Your task to perform on an android device: see creations saved in the google photos Image 0: 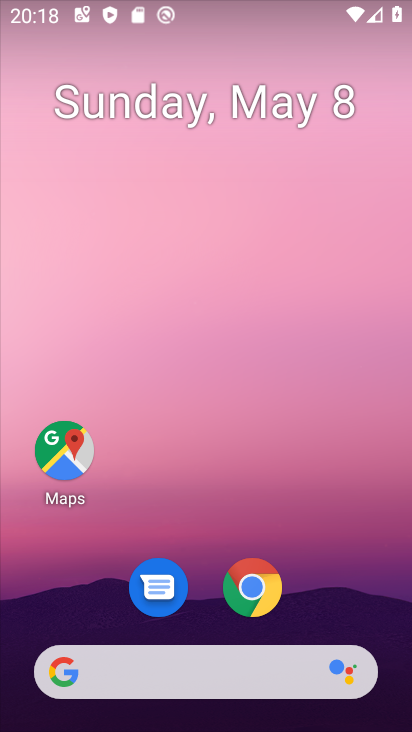
Step 0: drag from (342, 607) to (303, 129)
Your task to perform on an android device: see creations saved in the google photos Image 1: 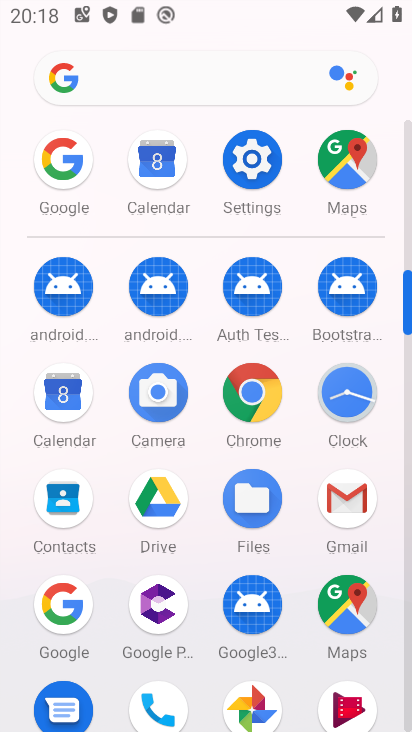
Step 1: drag from (203, 571) to (193, 367)
Your task to perform on an android device: see creations saved in the google photos Image 2: 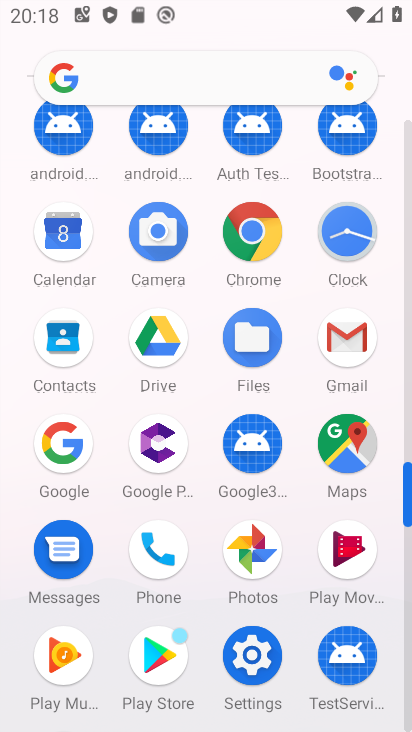
Step 2: click (249, 549)
Your task to perform on an android device: see creations saved in the google photos Image 3: 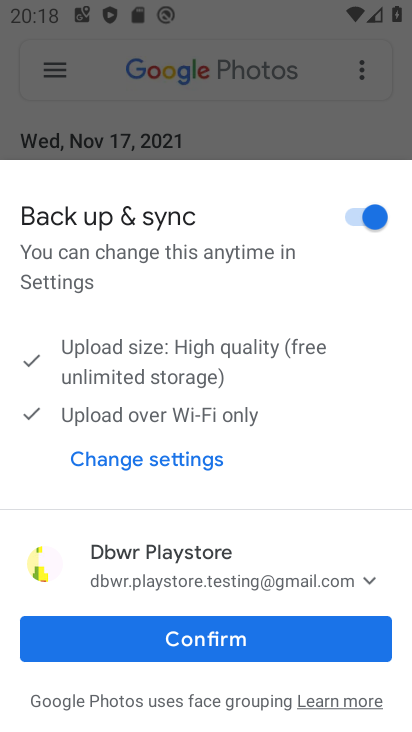
Step 3: click (241, 648)
Your task to perform on an android device: see creations saved in the google photos Image 4: 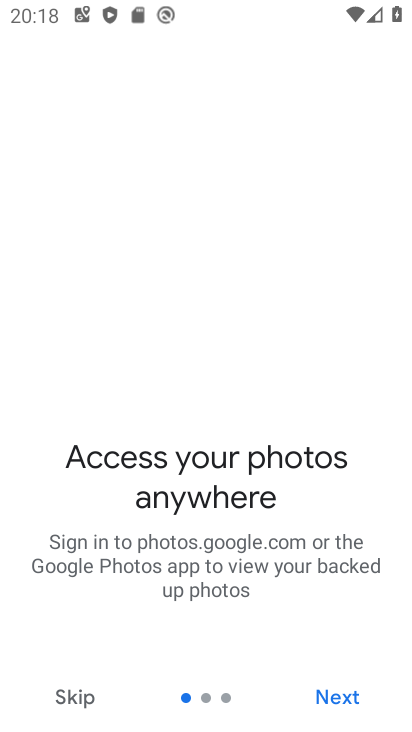
Step 4: click (83, 697)
Your task to perform on an android device: see creations saved in the google photos Image 5: 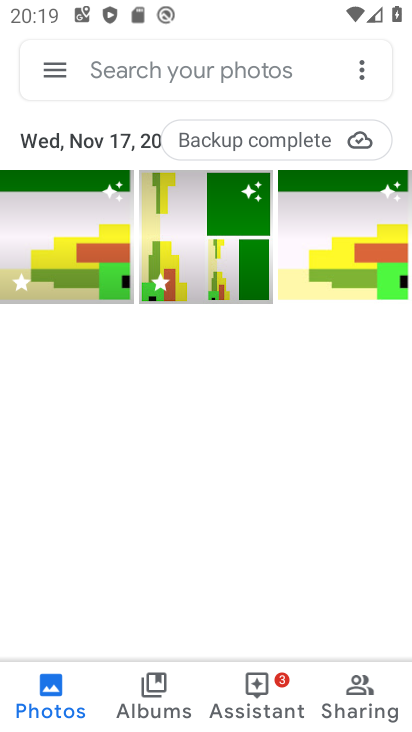
Step 5: click (194, 66)
Your task to perform on an android device: see creations saved in the google photos Image 6: 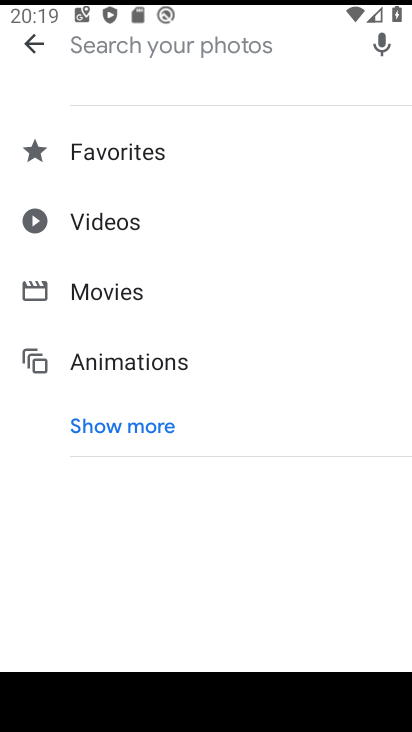
Step 6: click (126, 429)
Your task to perform on an android device: see creations saved in the google photos Image 7: 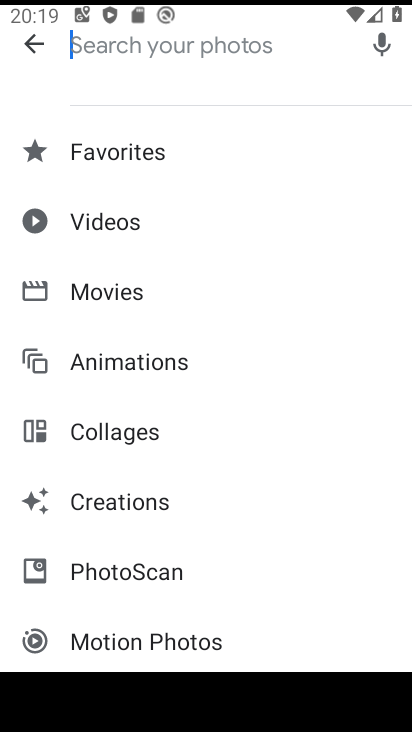
Step 7: drag from (93, 522) to (164, 392)
Your task to perform on an android device: see creations saved in the google photos Image 8: 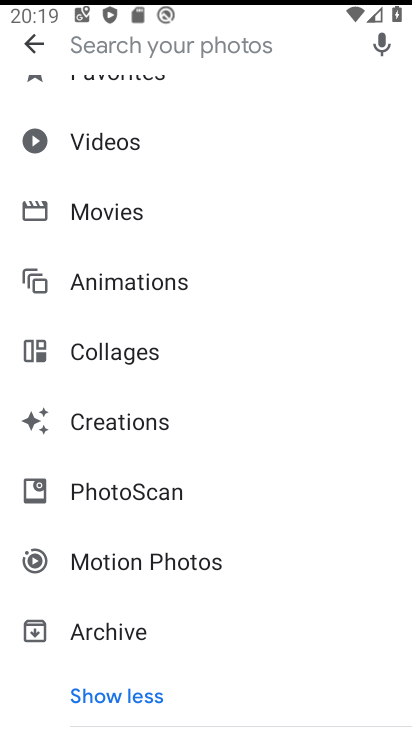
Step 8: click (163, 422)
Your task to perform on an android device: see creations saved in the google photos Image 9: 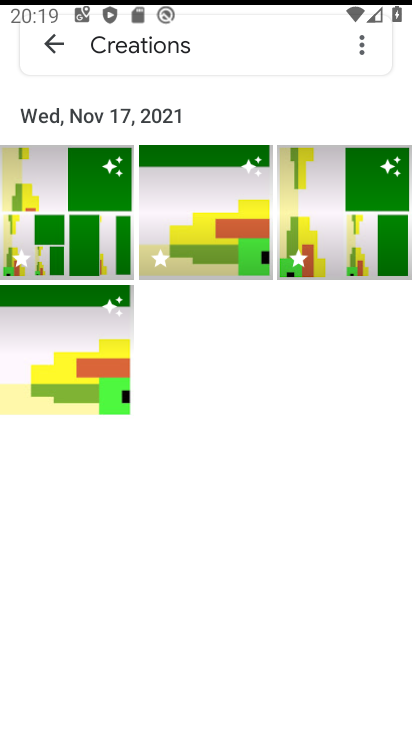
Step 9: drag from (253, 109) to (311, 369)
Your task to perform on an android device: see creations saved in the google photos Image 10: 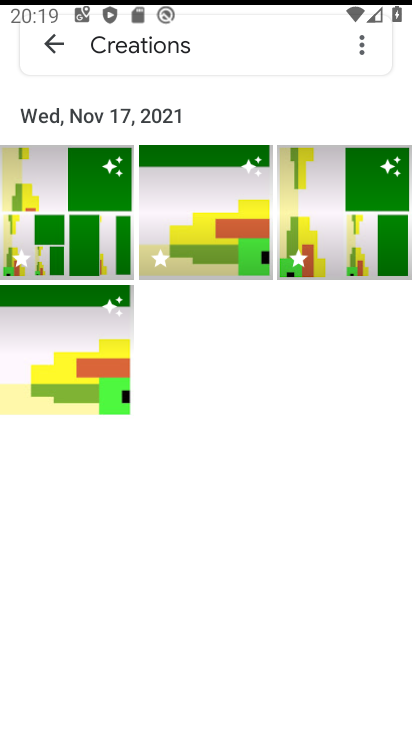
Step 10: click (362, 46)
Your task to perform on an android device: see creations saved in the google photos Image 11: 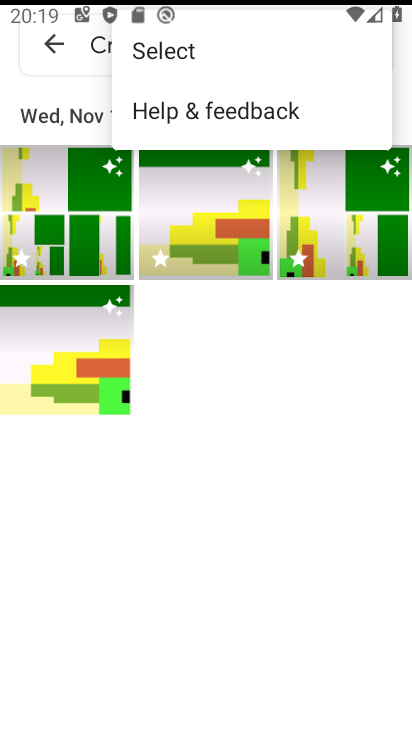
Step 11: click (213, 48)
Your task to perform on an android device: see creations saved in the google photos Image 12: 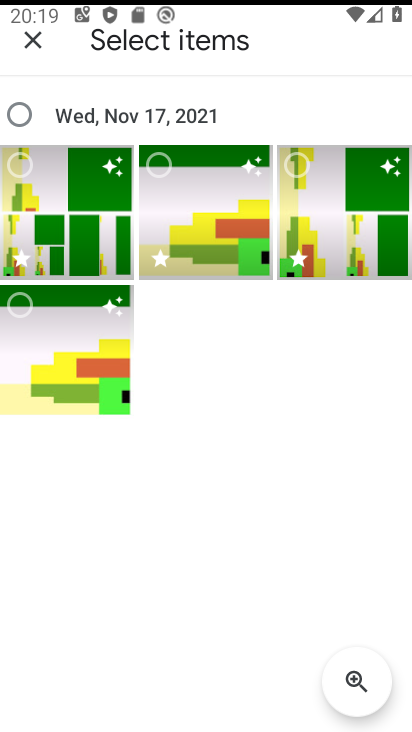
Step 12: click (13, 165)
Your task to perform on an android device: see creations saved in the google photos Image 13: 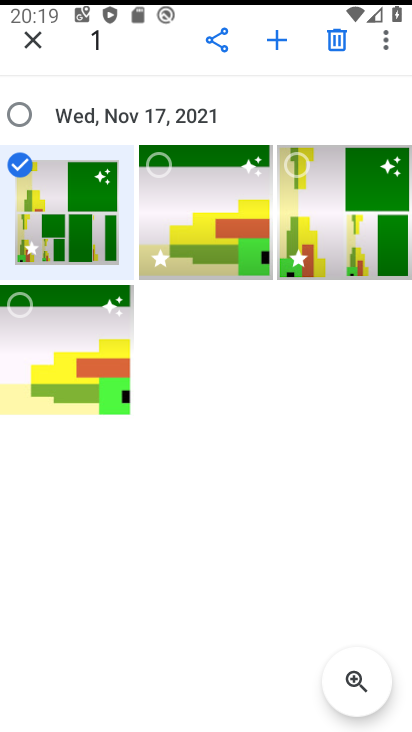
Step 13: click (383, 42)
Your task to perform on an android device: see creations saved in the google photos Image 14: 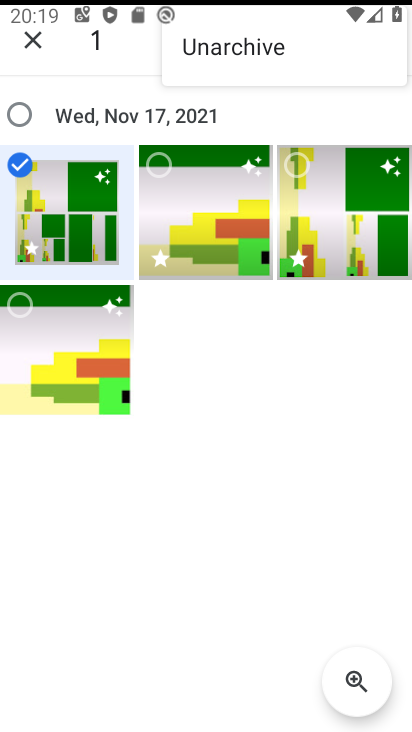
Step 14: click (292, 404)
Your task to perform on an android device: see creations saved in the google photos Image 15: 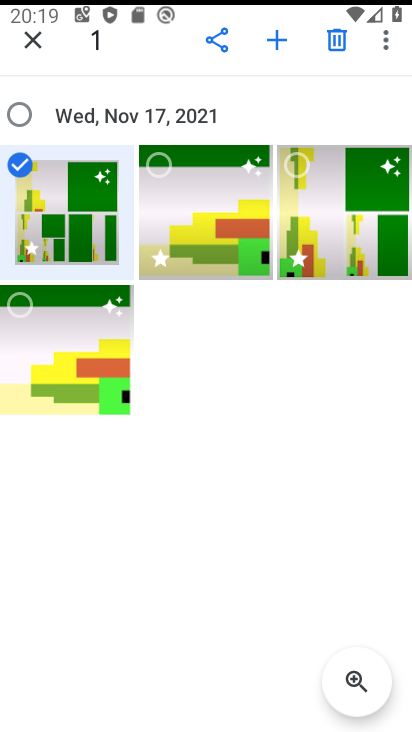
Step 15: click (269, 35)
Your task to perform on an android device: see creations saved in the google photos Image 16: 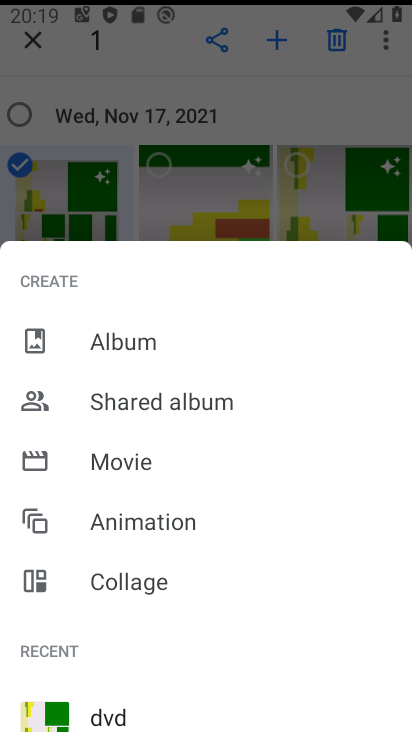
Step 16: drag from (94, 600) to (198, 338)
Your task to perform on an android device: see creations saved in the google photos Image 17: 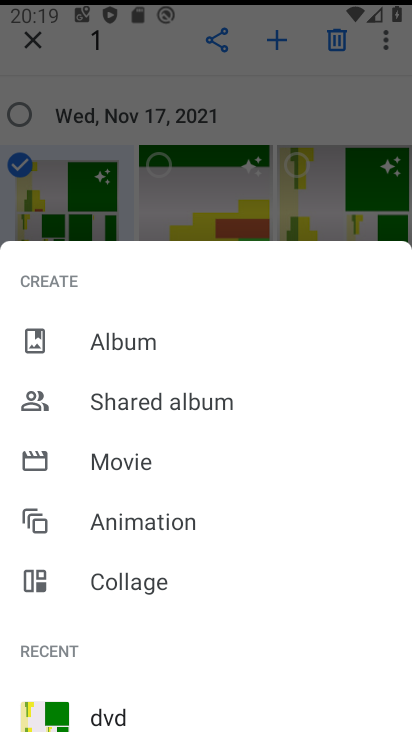
Step 17: click (354, 104)
Your task to perform on an android device: see creations saved in the google photos Image 18: 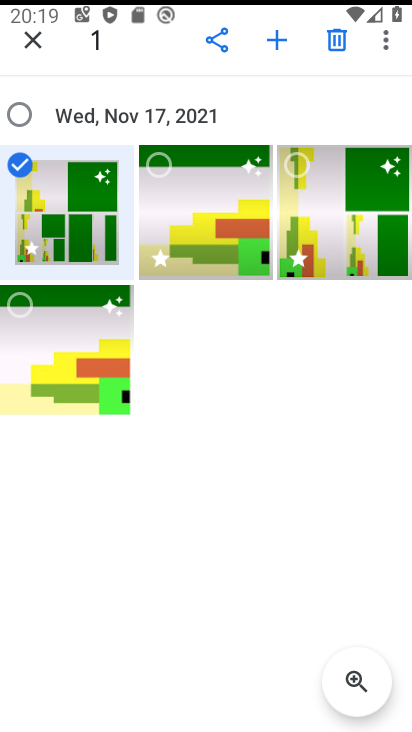
Step 18: click (335, 39)
Your task to perform on an android device: see creations saved in the google photos Image 19: 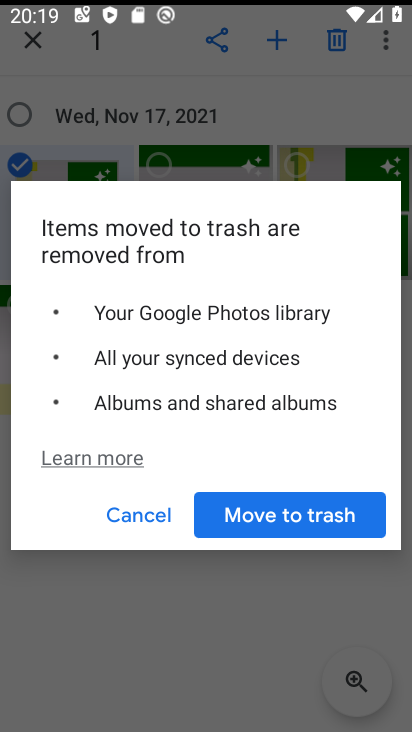
Step 19: click (143, 516)
Your task to perform on an android device: see creations saved in the google photos Image 20: 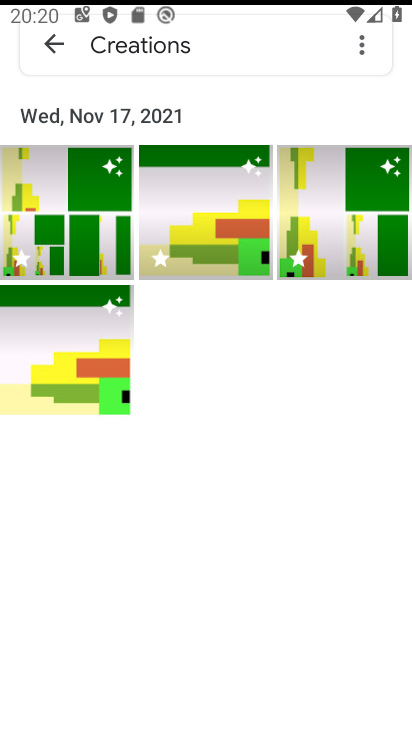
Step 20: task complete